Your task to perform on an android device: toggle notification dots Image 0: 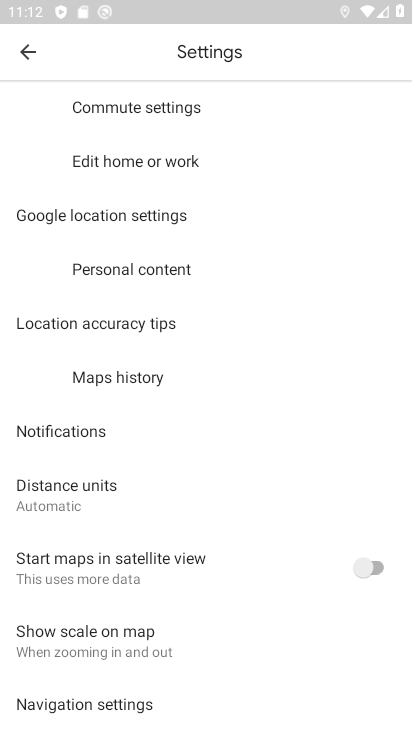
Step 0: press home button
Your task to perform on an android device: toggle notification dots Image 1: 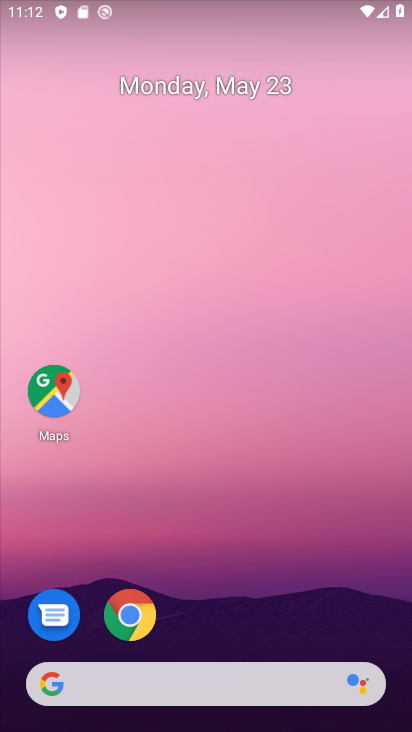
Step 1: drag from (184, 633) to (248, 39)
Your task to perform on an android device: toggle notification dots Image 2: 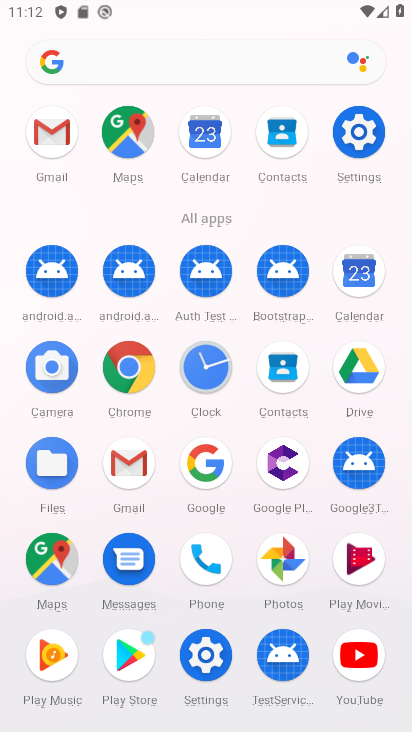
Step 2: click (224, 659)
Your task to perform on an android device: toggle notification dots Image 3: 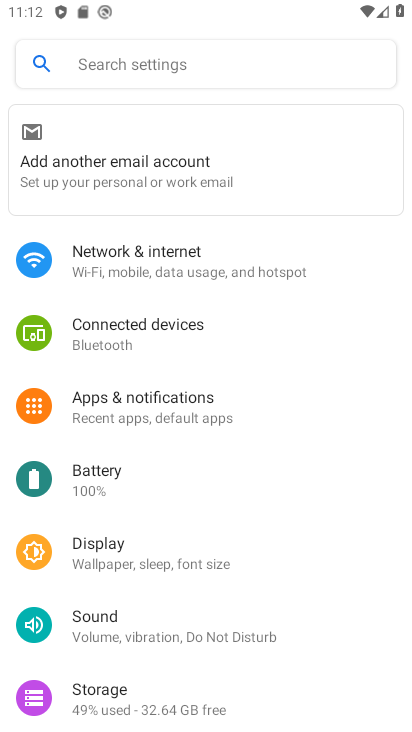
Step 3: click (127, 402)
Your task to perform on an android device: toggle notification dots Image 4: 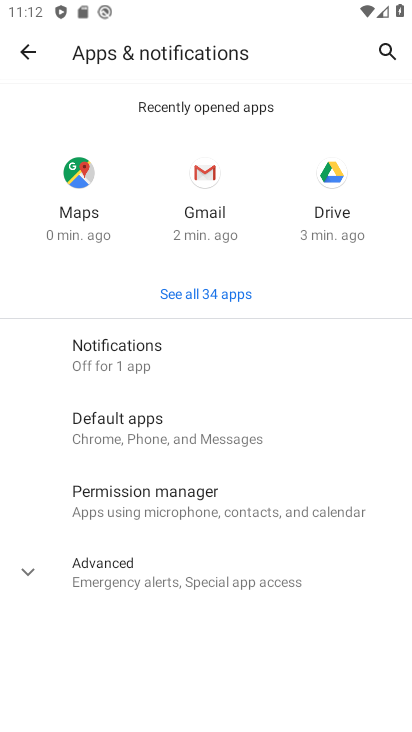
Step 4: click (113, 341)
Your task to perform on an android device: toggle notification dots Image 5: 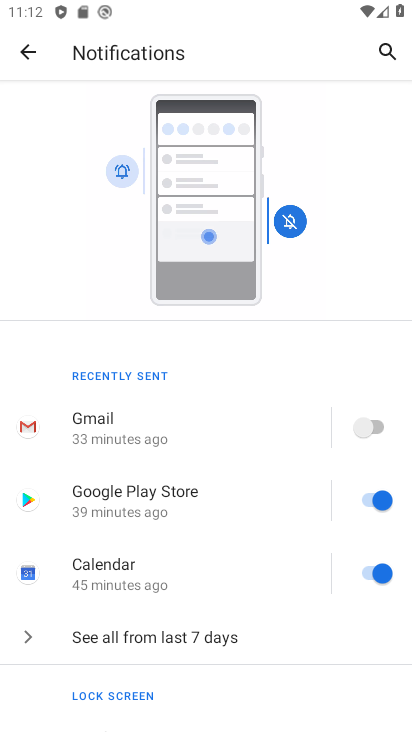
Step 5: drag from (124, 658) to (206, 69)
Your task to perform on an android device: toggle notification dots Image 6: 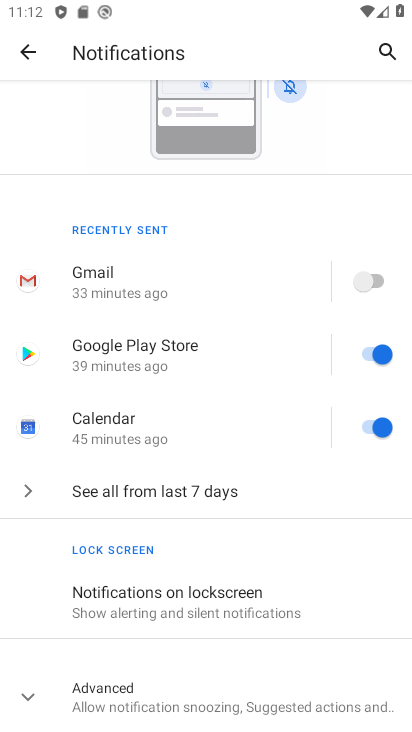
Step 6: click (115, 691)
Your task to perform on an android device: toggle notification dots Image 7: 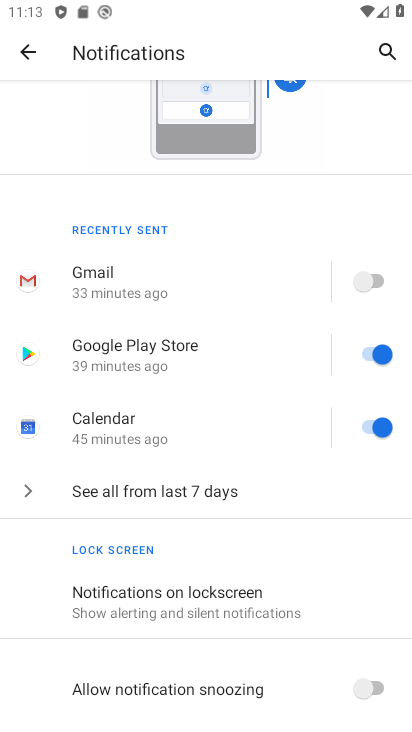
Step 7: drag from (181, 625) to (231, 200)
Your task to perform on an android device: toggle notification dots Image 8: 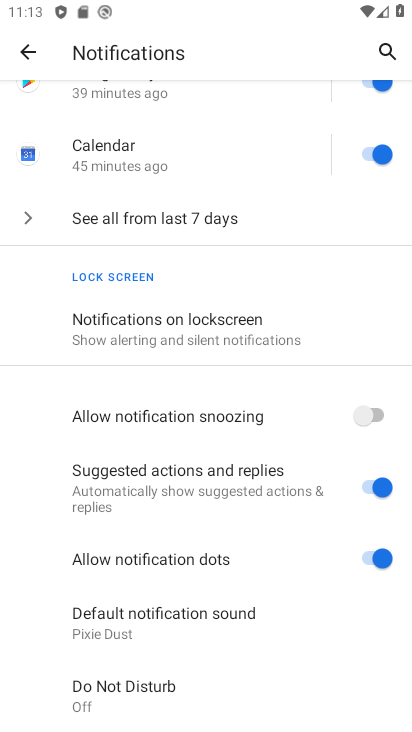
Step 8: click (372, 551)
Your task to perform on an android device: toggle notification dots Image 9: 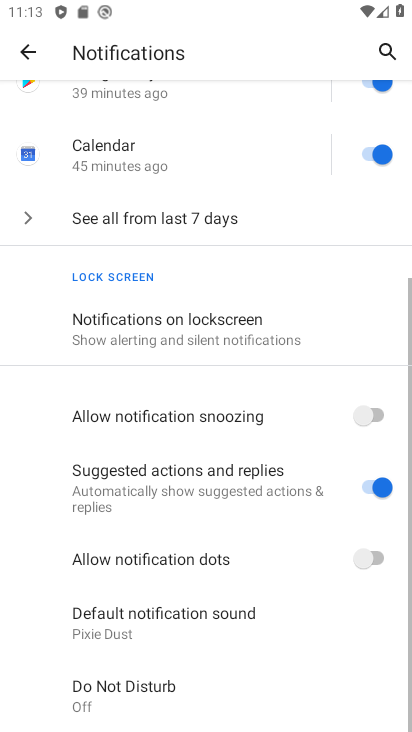
Step 9: click (372, 551)
Your task to perform on an android device: toggle notification dots Image 10: 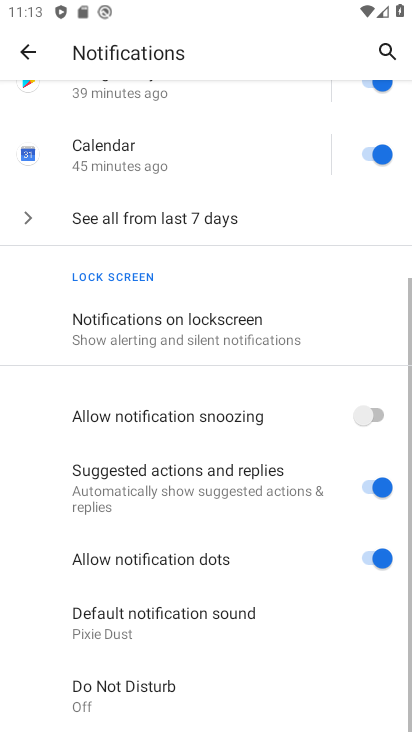
Step 10: click (372, 551)
Your task to perform on an android device: toggle notification dots Image 11: 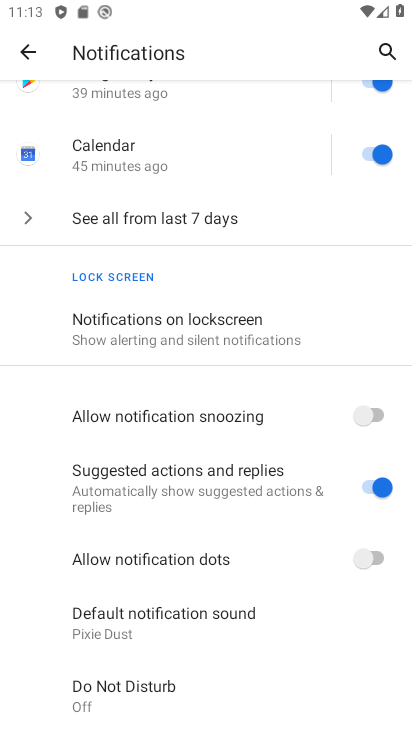
Step 11: task complete